Your task to perform on an android device: turn on priority inbox in the gmail app Image 0: 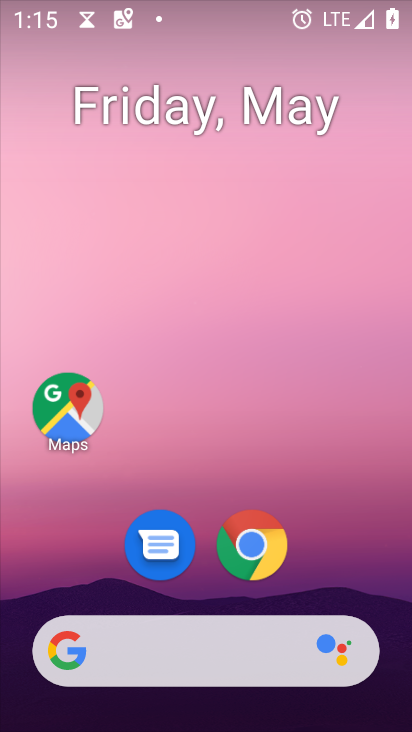
Step 0: drag from (314, 543) to (300, 253)
Your task to perform on an android device: turn on priority inbox in the gmail app Image 1: 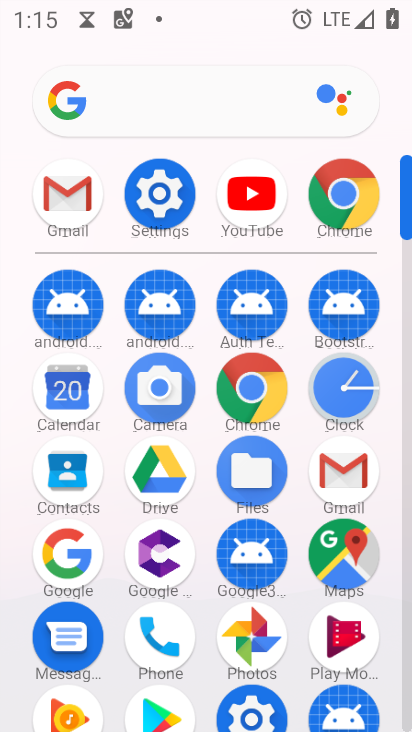
Step 1: click (64, 182)
Your task to perform on an android device: turn on priority inbox in the gmail app Image 2: 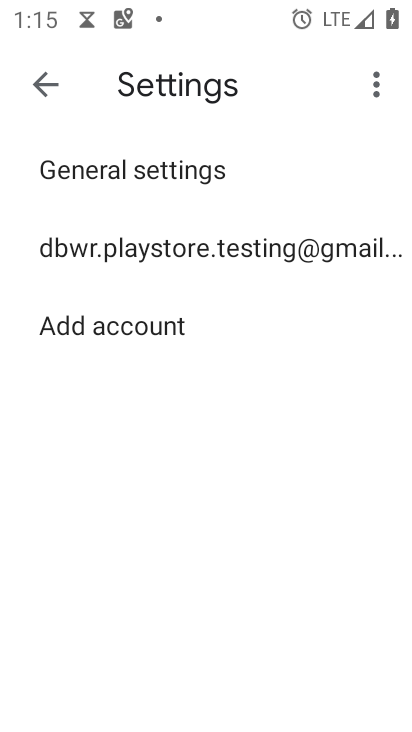
Step 2: click (149, 247)
Your task to perform on an android device: turn on priority inbox in the gmail app Image 3: 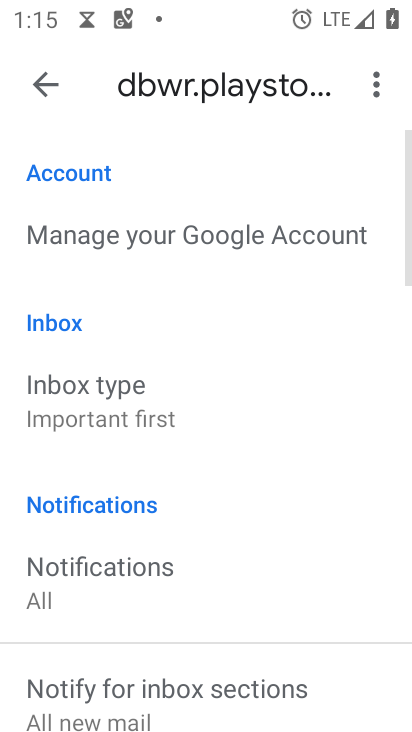
Step 3: click (127, 418)
Your task to perform on an android device: turn on priority inbox in the gmail app Image 4: 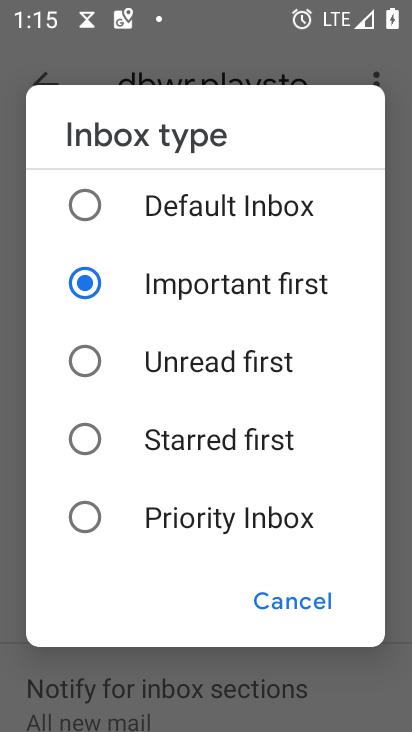
Step 4: click (74, 519)
Your task to perform on an android device: turn on priority inbox in the gmail app Image 5: 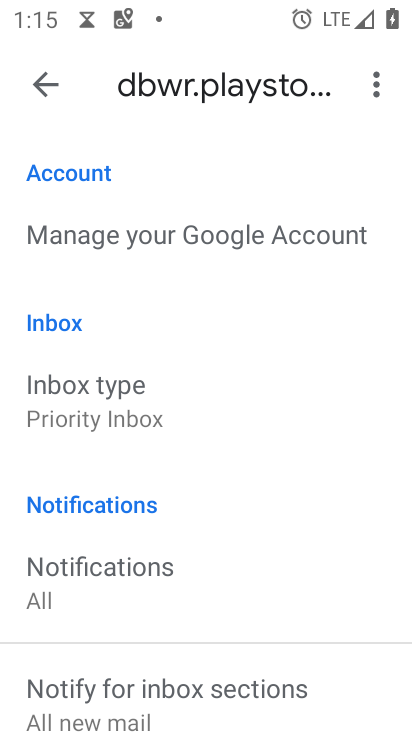
Step 5: task complete